Your task to perform on an android device: check data usage Image 0: 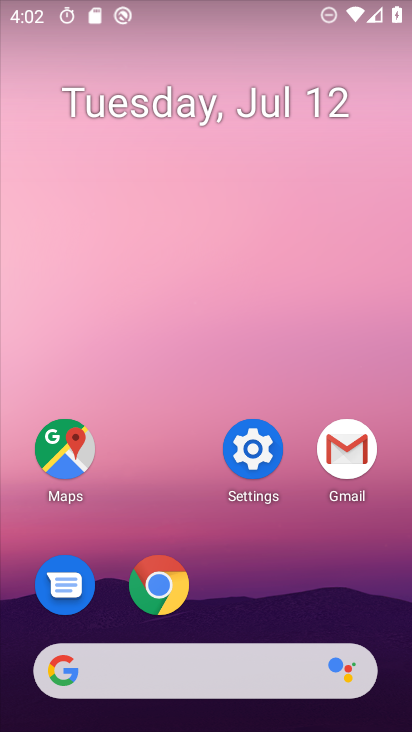
Step 0: drag from (389, 669) to (380, 132)
Your task to perform on an android device: check data usage Image 1: 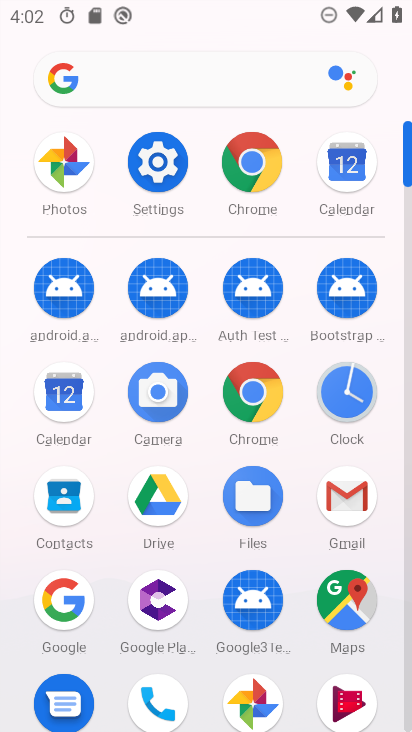
Step 1: click (169, 183)
Your task to perform on an android device: check data usage Image 2: 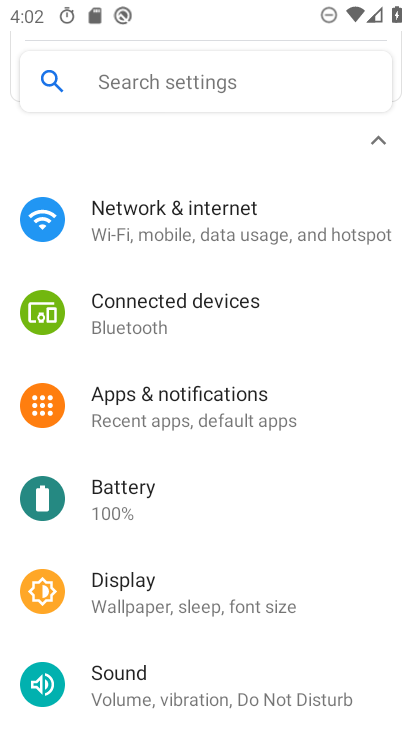
Step 2: click (147, 204)
Your task to perform on an android device: check data usage Image 3: 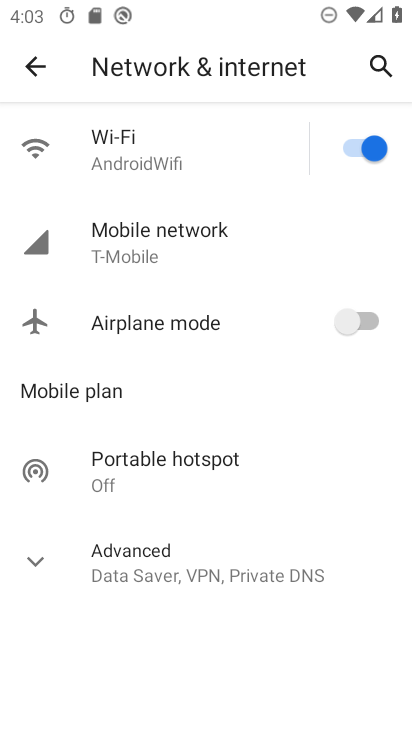
Step 3: click (121, 234)
Your task to perform on an android device: check data usage Image 4: 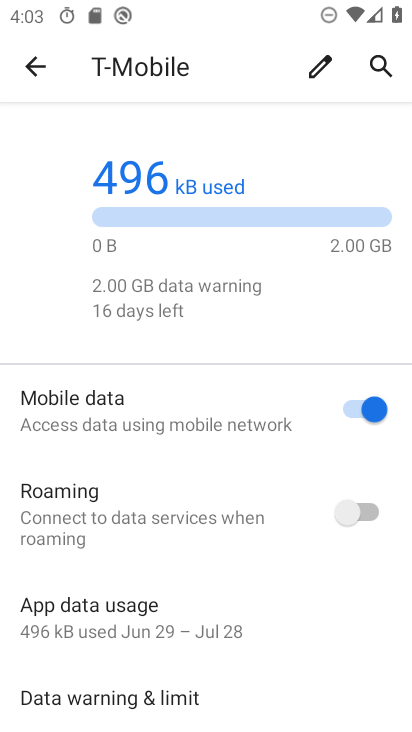
Step 4: task complete